Your task to perform on an android device: turn on sleep mode Image 0: 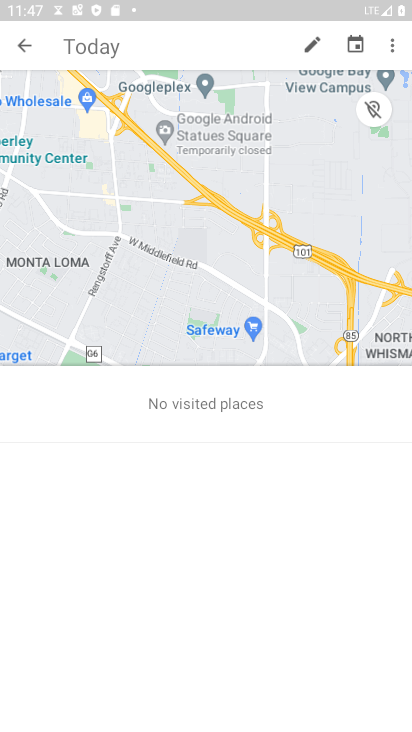
Step 0: press home button
Your task to perform on an android device: turn on sleep mode Image 1: 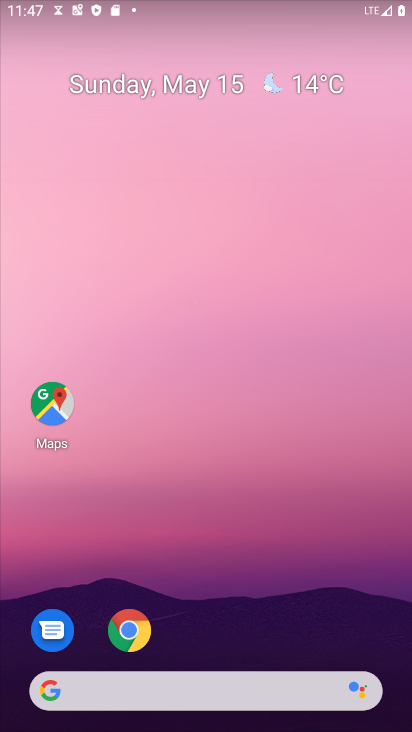
Step 1: drag from (4, 632) to (262, 138)
Your task to perform on an android device: turn on sleep mode Image 2: 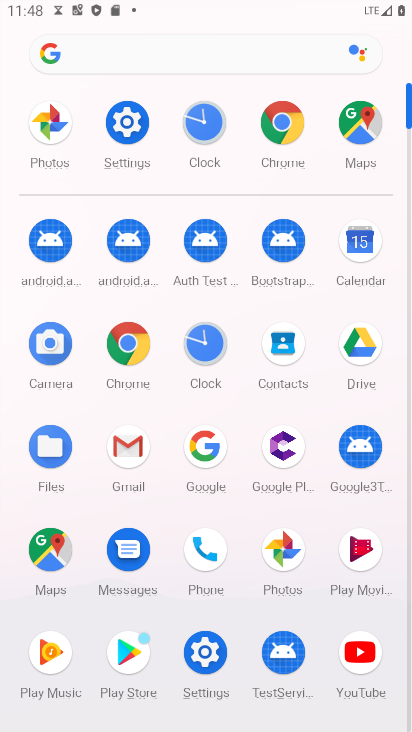
Step 2: press home button
Your task to perform on an android device: turn on sleep mode Image 3: 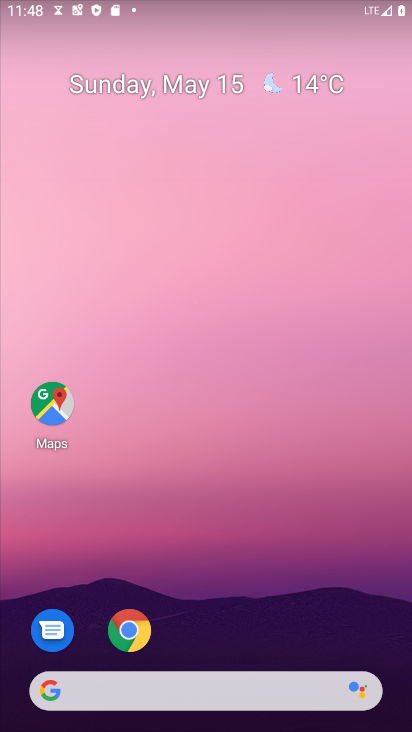
Step 3: drag from (2, 610) to (308, 42)
Your task to perform on an android device: turn on sleep mode Image 4: 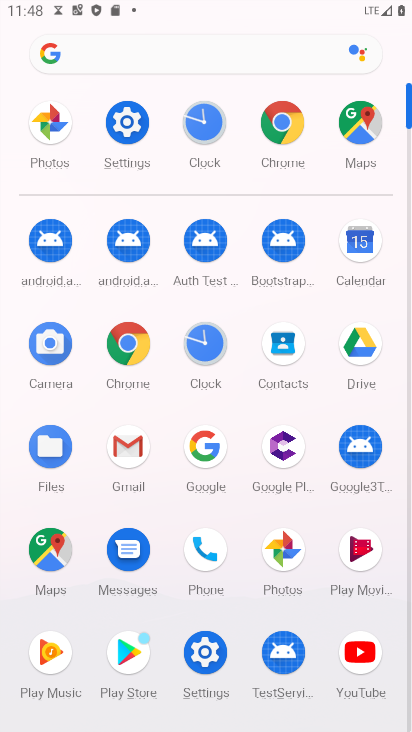
Step 4: click (118, 137)
Your task to perform on an android device: turn on sleep mode Image 5: 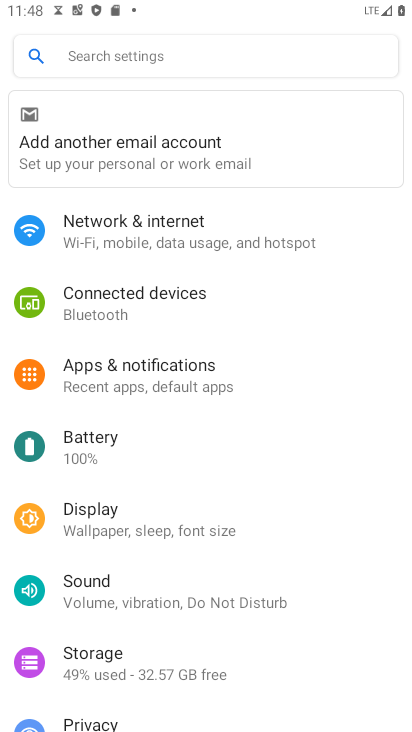
Step 5: click (128, 516)
Your task to perform on an android device: turn on sleep mode Image 6: 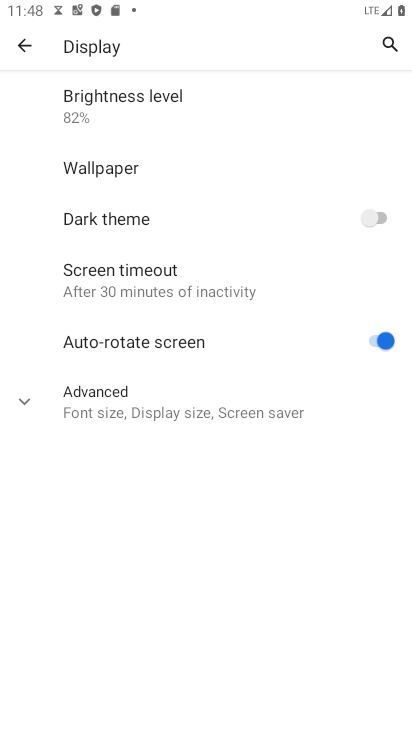
Step 6: task complete